Your task to perform on an android device: Do I have any events tomorrow? Image 0: 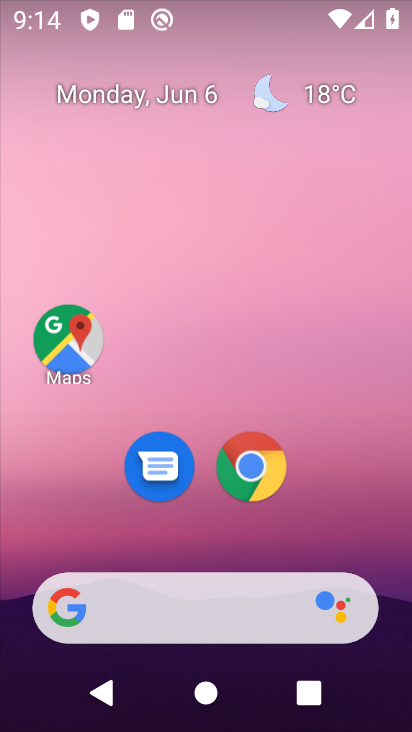
Step 0: drag from (198, 541) to (221, 15)
Your task to perform on an android device: Do I have any events tomorrow? Image 1: 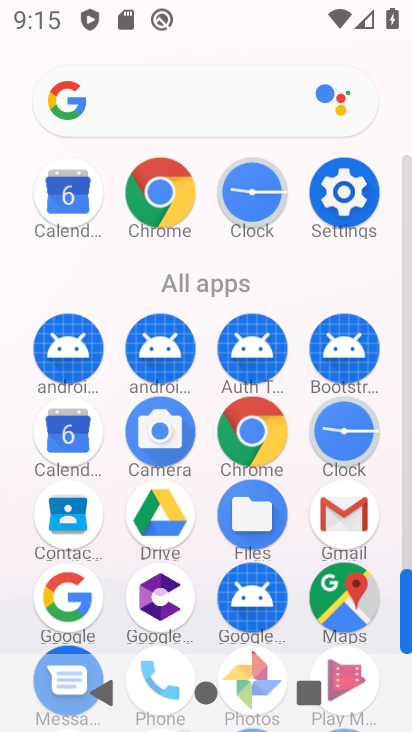
Step 1: click (67, 451)
Your task to perform on an android device: Do I have any events tomorrow? Image 2: 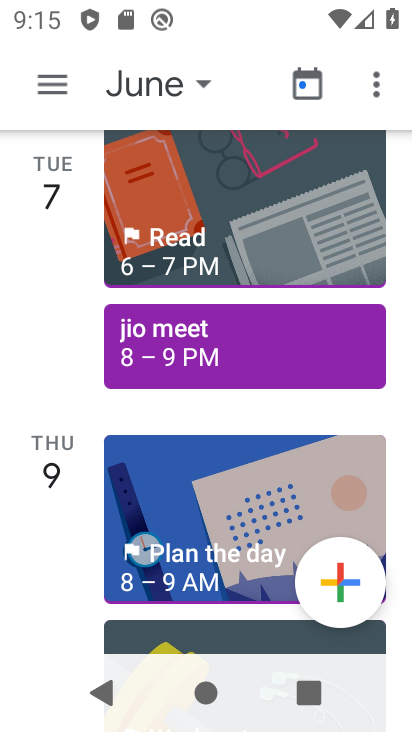
Step 2: task complete